Your task to perform on an android device: Find coffee shops on Maps Image 0: 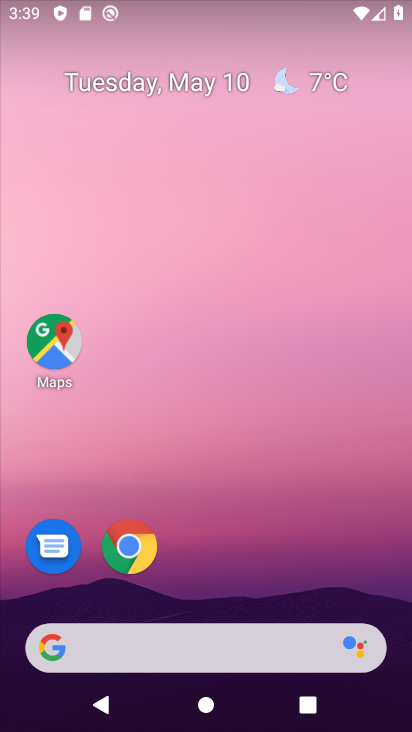
Step 0: click (127, 548)
Your task to perform on an android device: Find coffee shops on Maps Image 1: 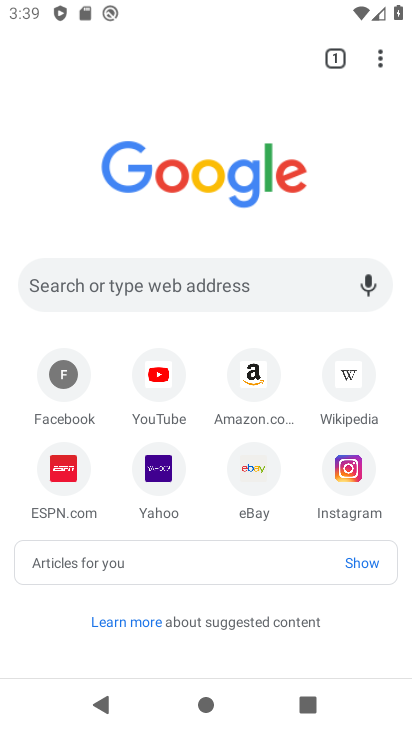
Step 1: press back button
Your task to perform on an android device: Find coffee shops on Maps Image 2: 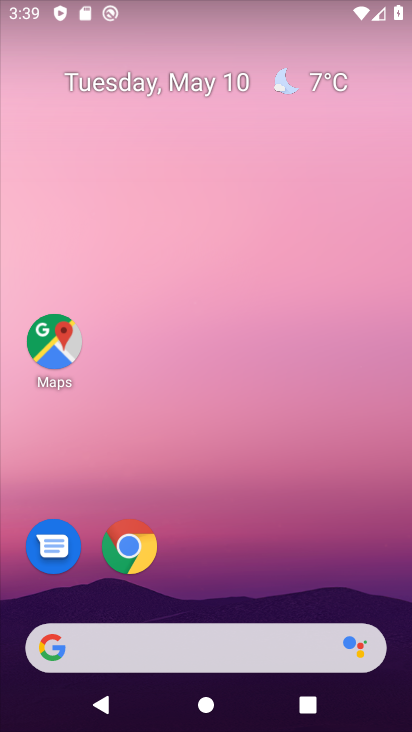
Step 2: click (62, 338)
Your task to perform on an android device: Find coffee shops on Maps Image 3: 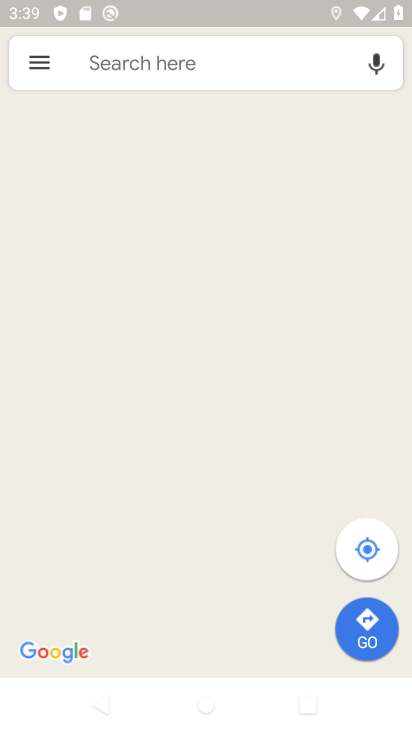
Step 3: click (133, 57)
Your task to perform on an android device: Find coffee shops on Maps Image 4: 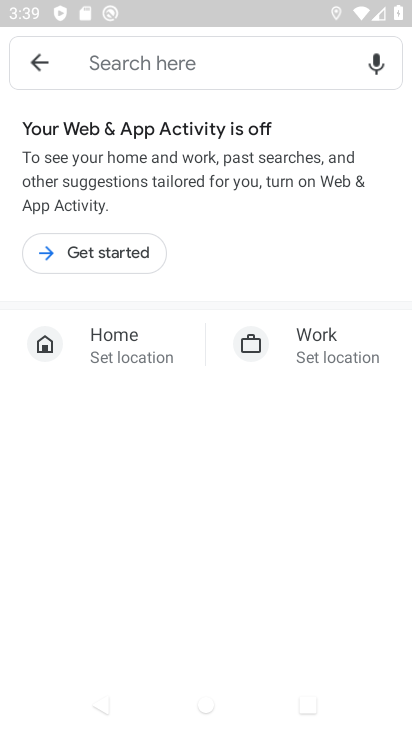
Step 4: click (121, 67)
Your task to perform on an android device: Find coffee shops on Maps Image 5: 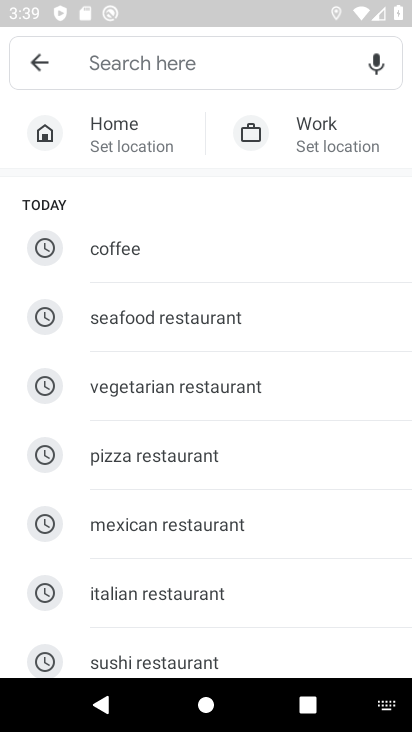
Step 5: type "coffee shops"
Your task to perform on an android device: Find coffee shops on Maps Image 6: 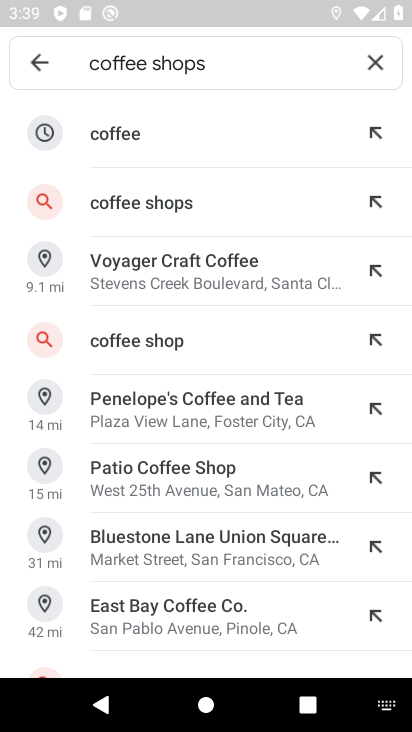
Step 6: click (162, 201)
Your task to perform on an android device: Find coffee shops on Maps Image 7: 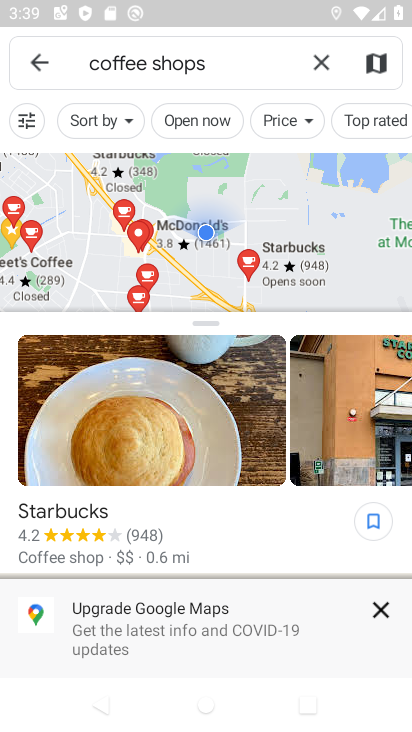
Step 7: task complete